Your task to perform on an android device: Open sound settings Image 0: 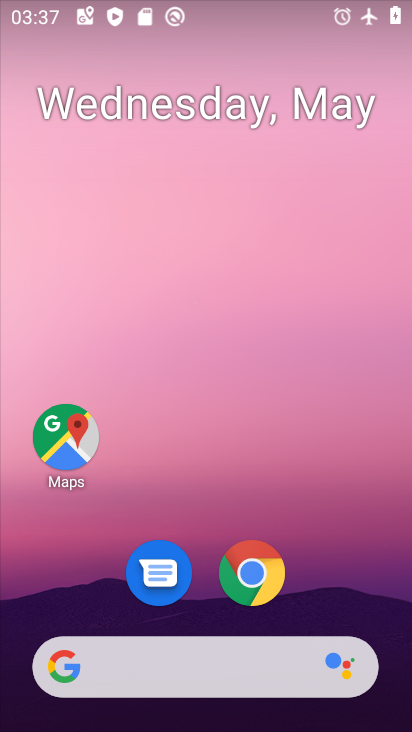
Step 0: drag from (227, 714) to (212, 89)
Your task to perform on an android device: Open sound settings Image 1: 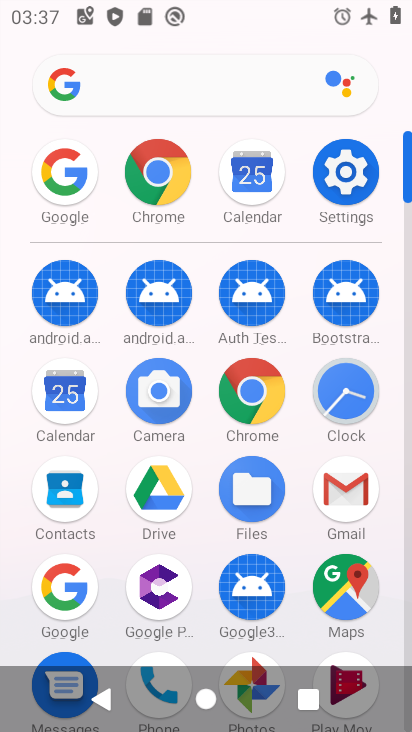
Step 1: click (336, 175)
Your task to perform on an android device: Open sound settings Image 2: 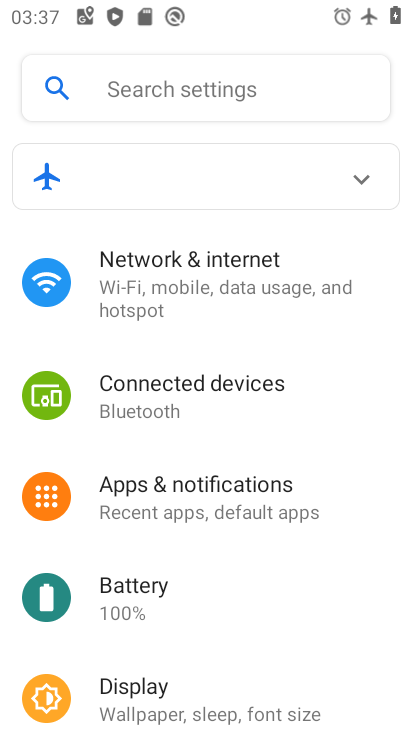
Step 2: drag from (156, 685) to (177, 276)
Your task to perform on an android device: Open sound settings Image 3: 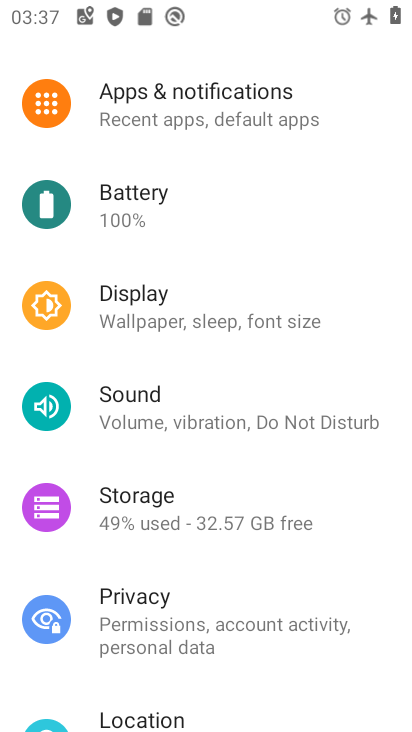
Step 3: click (140, 396)
Your task to perform on an android device: Open sound settings Image 4: 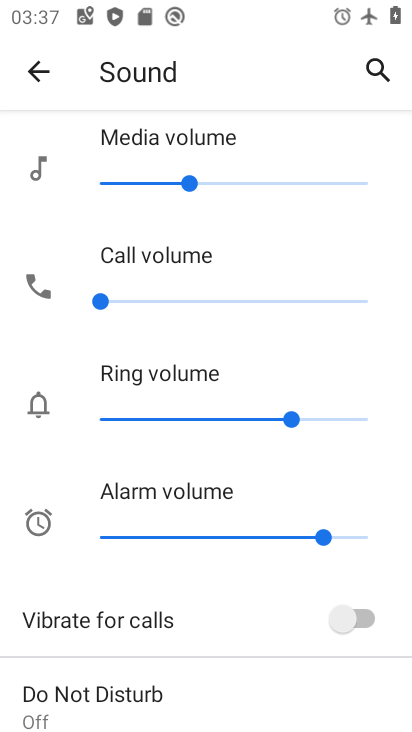
Step 4: task complete